Your task to perform on an android device: stop showing notifications on the lock screen Image 0: 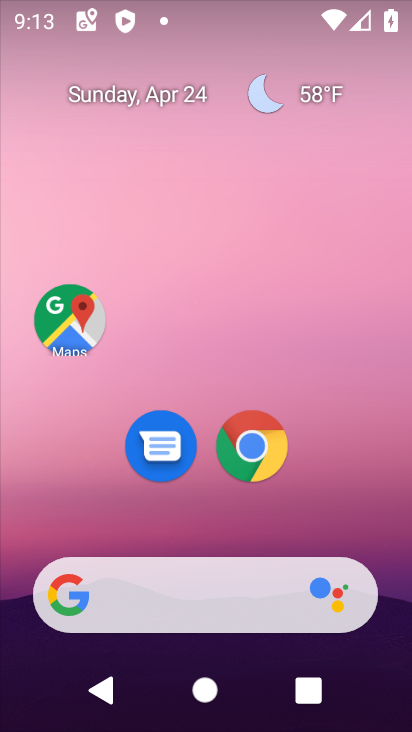
Step 0: press home button
Your task to perform on an android device: stop showing notifications on the lock screen Image 1: 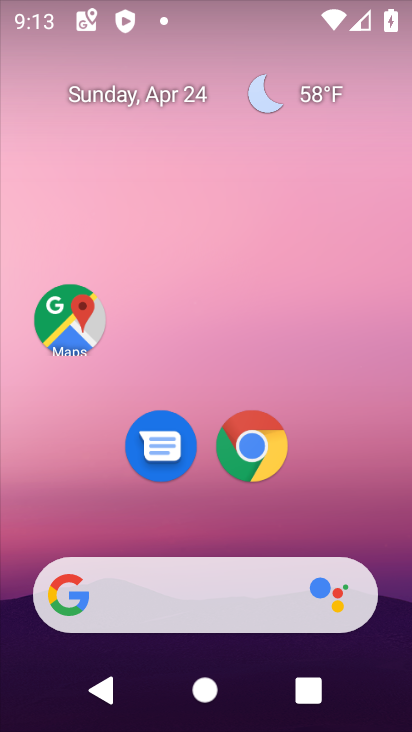
Step 1: drag from (176, 595) to (225, 205)
Your task to perform on an android device: stop showing notifications on the lock screen Image 2: 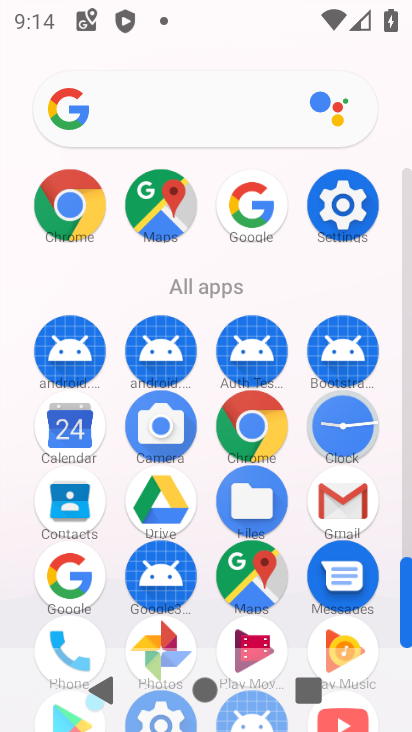
Step 2: click (345, 220)
Your task to perform on an android device: stop showing notifications on the lock screen Image 3: 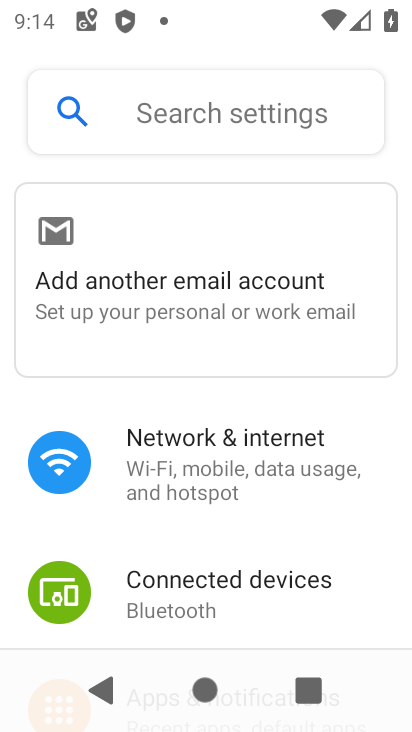
Step 3: drag from (159, 633) to (338, 241)
Your task to perform on an android device: stop showing notifications on the lock screen Image 4: 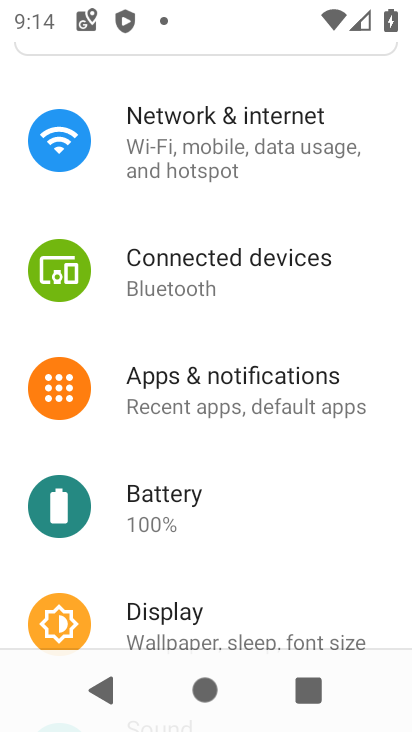
Step 4: click (252, 371)
Your task to perform on an android device: stop showing notifications on the lock screen Image 5: 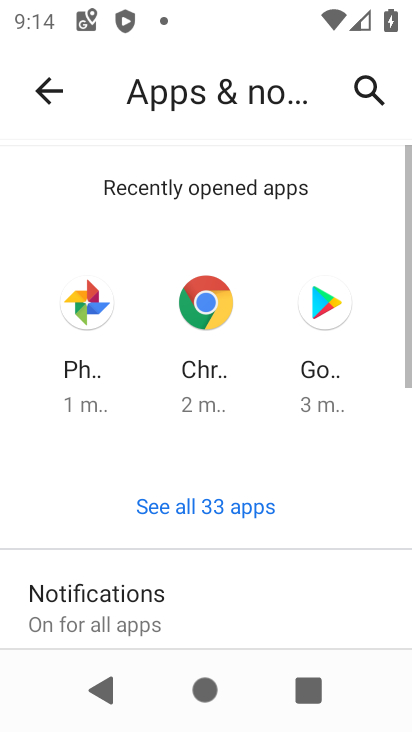
Step 5: drag from (180, 598) to (401, 93)
Your task to perform on an android device: stop showing notifications on the lock screen Image 6: 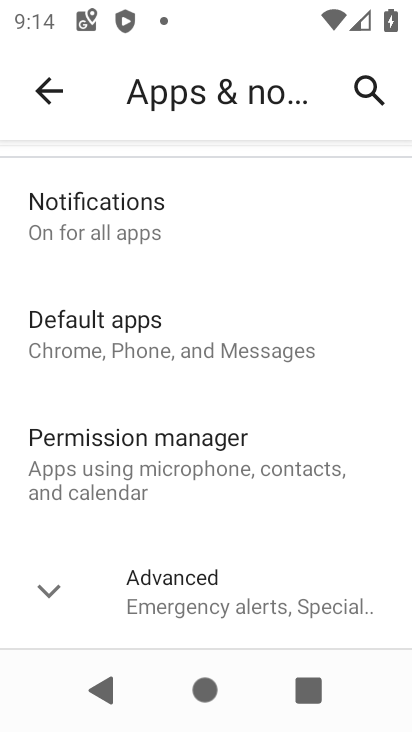
Step 6: click (113, 210)
Your task to perform on an android device: stop showing notifications on the lock screen Image 7: 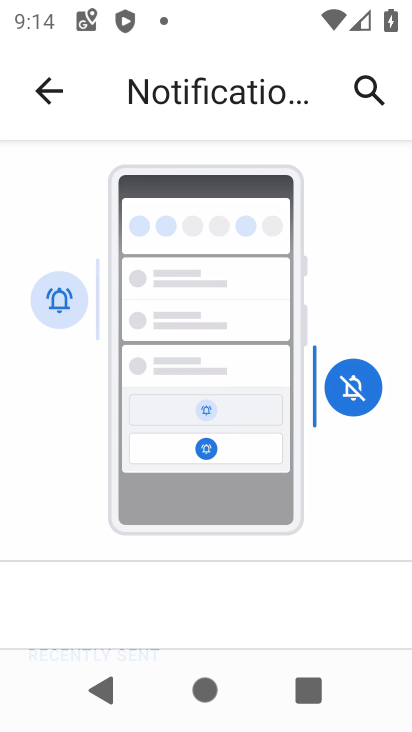
Step 7: drag from (194, 598) to (325, 154)
Your task to perform on an android device: stop showing notifications on the lock screen Image 8: 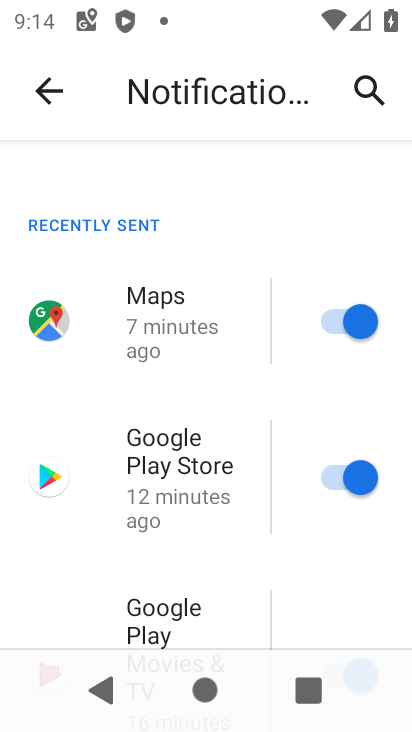
Step 8: drag from (188, 576) to (411, 72)
Your task to perform on an android device: stop showing notifications on the lock screen Image 9: 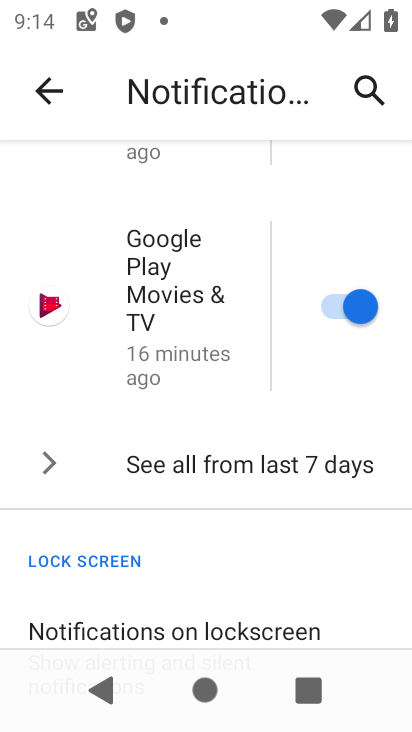
Step 9: drag from (184, 549) to (320, 129)
Your task to perform on an android device: stop showing notifications on the lock screen Image 10: 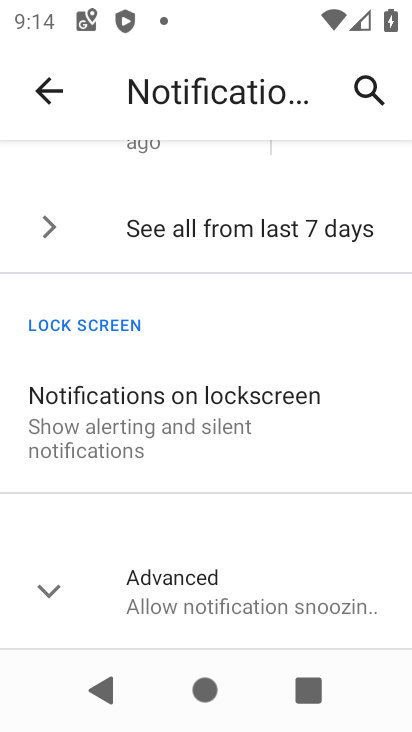
Step 10: click (117, 394)
Your task to perform on an android device: stop showing notifications on the lock screen Image 11: 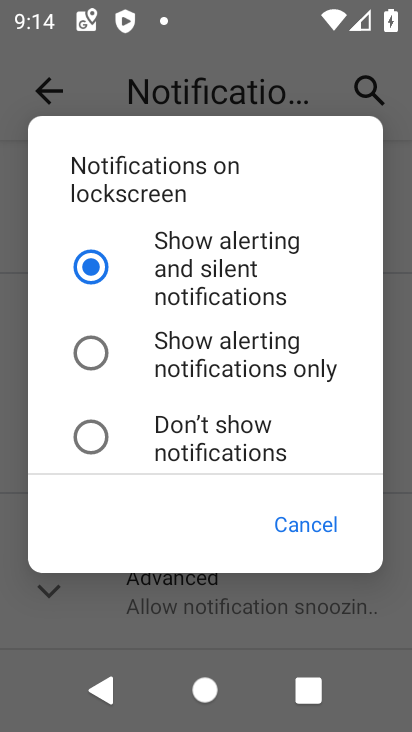
Step 11: click (86, 440)
Your task to perform on an android device: stop showing notifications on the lock screen Image 12: 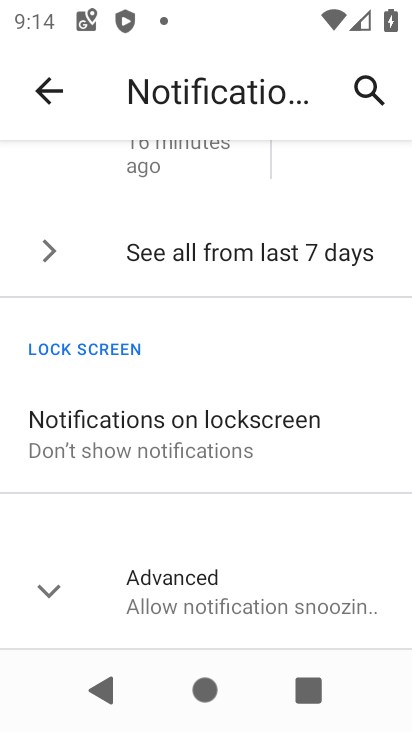
Step 12: task complete